Your task to perform on an android device: allow notifications from all sites in the chrome app Image 0: 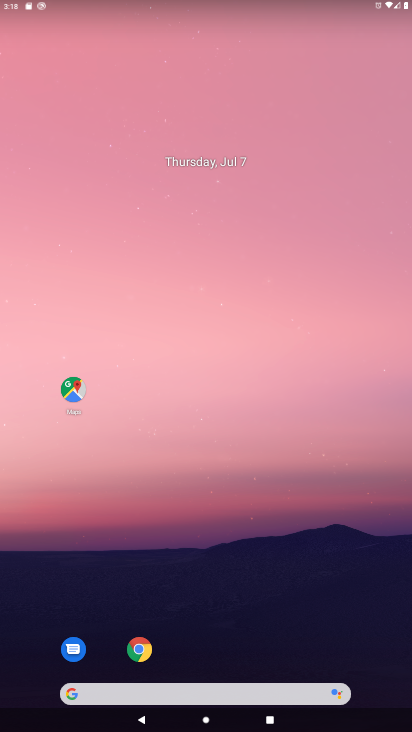
Step 0: drag from (210, 560) to (267, 42)
Your task to perform on an android device: allow notifications from all sites in the chrome app Image 1: 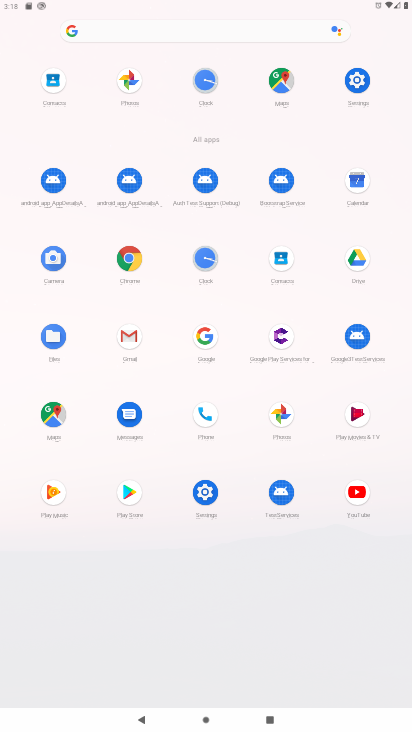
Step 1: click (126, 261)
Your task to perform on an android device: allow notifications from all sites in the chrome app Image 2: 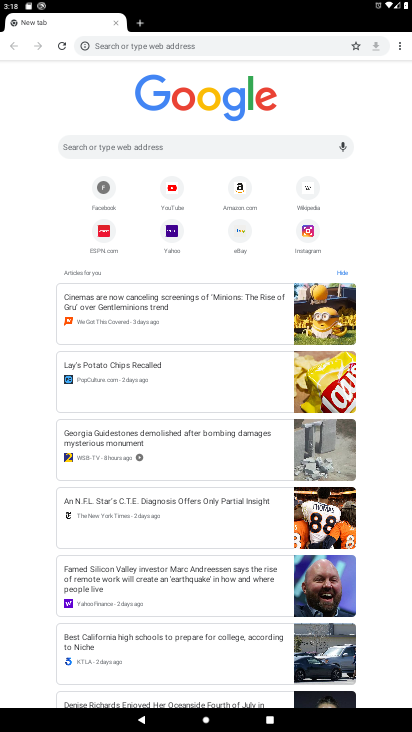
Step 2: drag from (394, 46) to (299, 215)
Your task to perform on an android device: allow notifications from all sites in the chrome app Image 3: 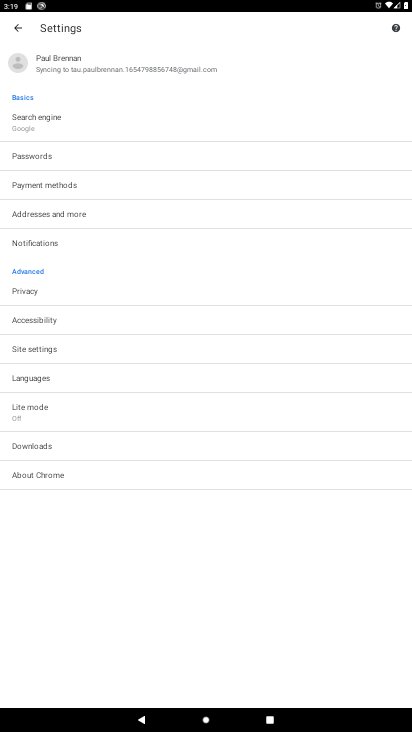
Step 3: click (68, 248)
Your task to perform on an android device: allow notifications from all sites in the chrome app Image 4: 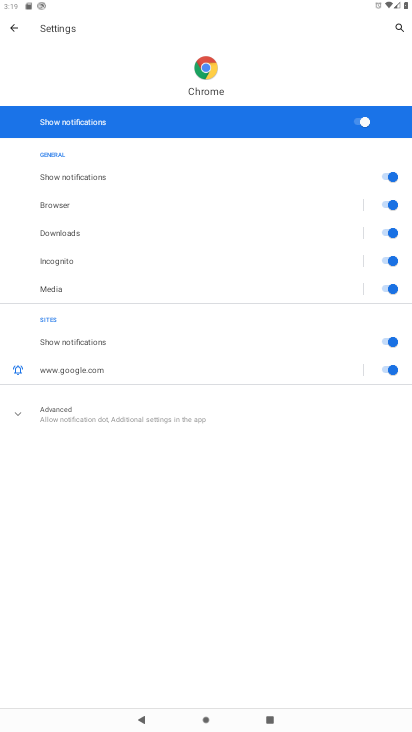
Step 4: task complete